Your task to perform on an android device: empty trash in the gmail app Image 0: 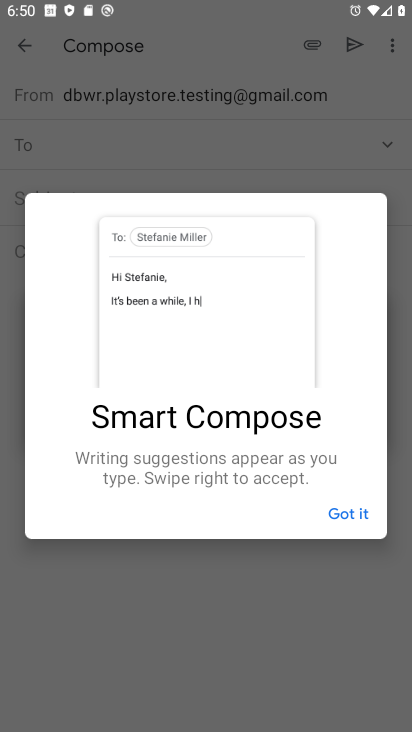
Step 0: press home button
Your task to perform on an android device: empty trash in the gmail app Image 1: 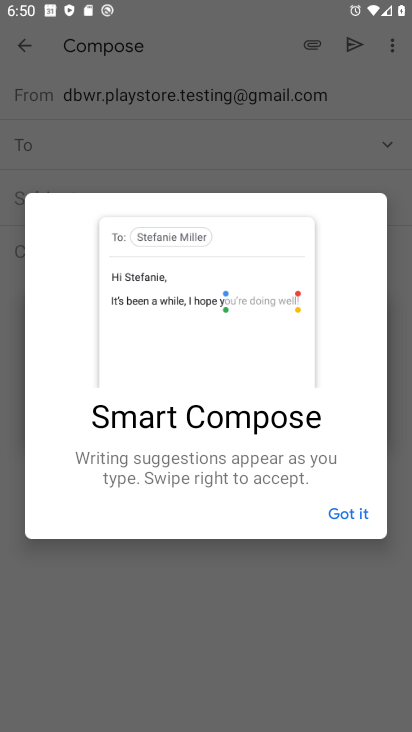
Step 1: drag from (303, 413) to (248, 19)
Your task to perform on an android device: empty trash in the gmail app Image 2: 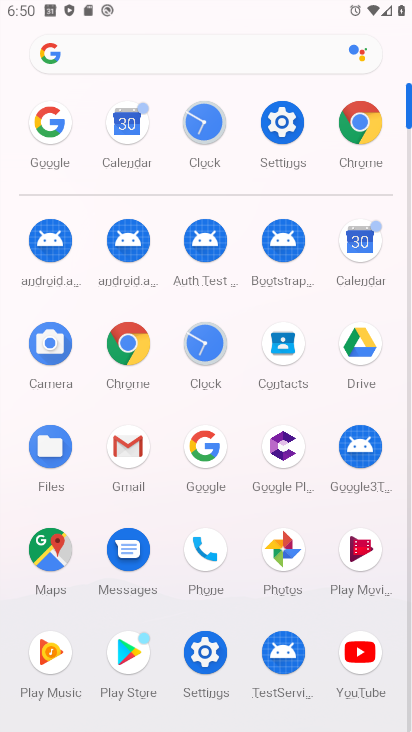
Step 2: click (133, 448)
Your task to perform on an android device: empty trash in the gmail app Image 3: 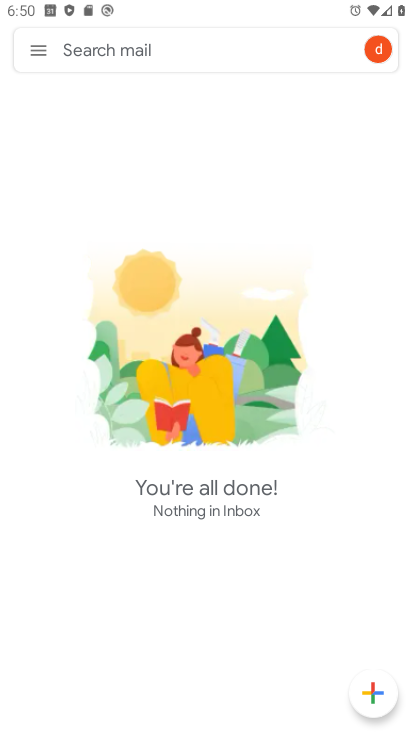
Step 3: click (30, 62)
Your task to perform on an android device: empty trash in the gmail app Image 4: 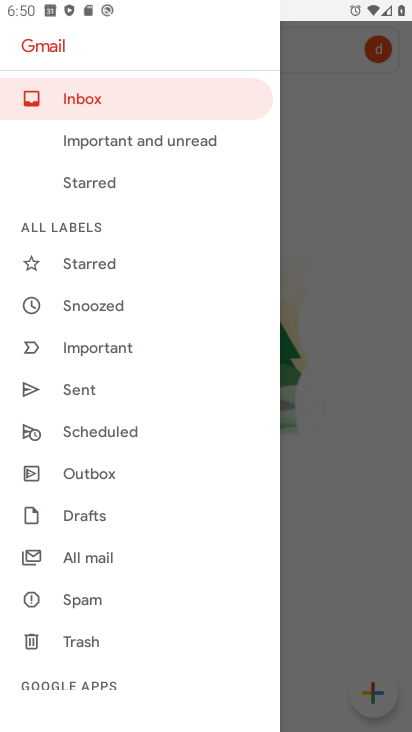
Step 4: click (103, 635)
Your task to perform on an android device: empty trash in the gmail app Image 5: 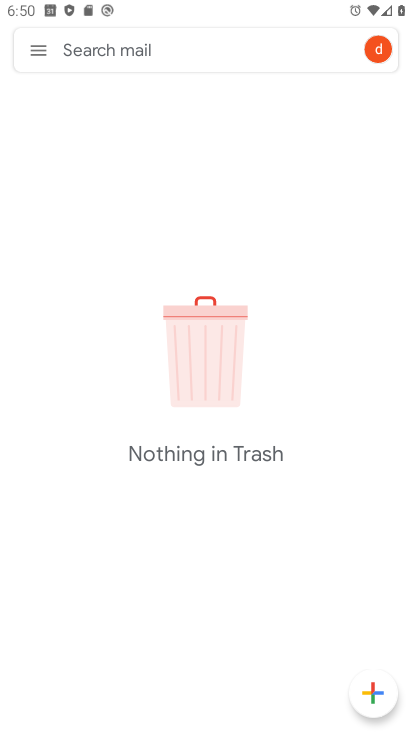
Step 5: task complete